Your task to perform on an android device: When is my next meeting? Image 0: 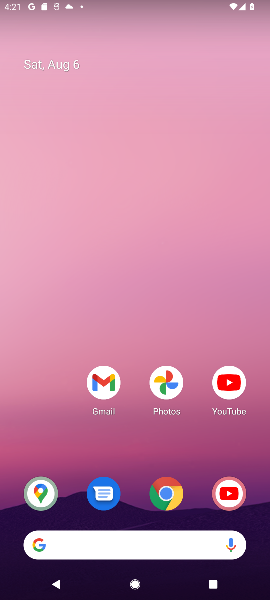
Step 0: drag from (168, 568) to (115, 177)
Your task to perform on an android device: When is my next meeting? Image 1: 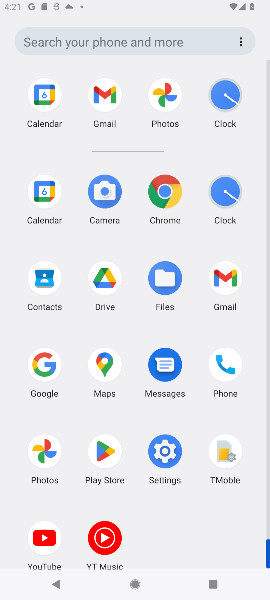
Step 1: drag from (153, 528) to (141, 148)
Your task to perform on an android device: When is my next meeting? Image 2: 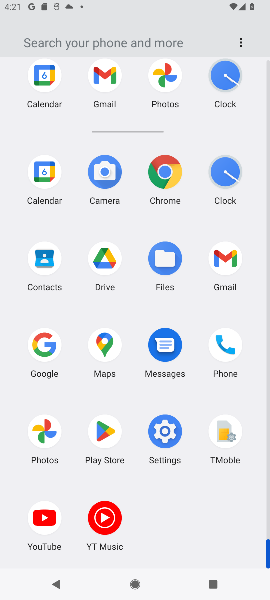
Step 2: click (45, 170)
Your task to perform on an android device: When is my next meeting? Image 3: 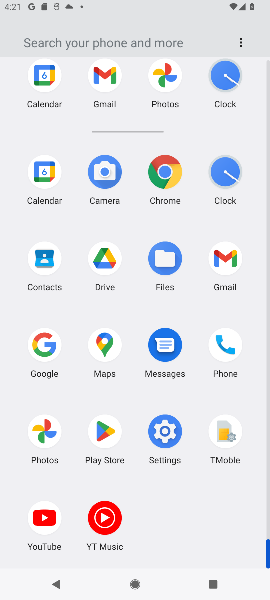
Step 3: click (43, 168)
Your task to perform on an android device: When is my next meeting? Image 4: 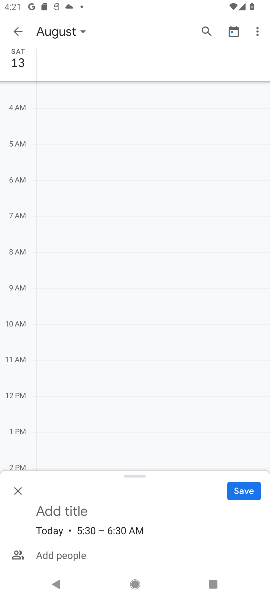
Step 4: press back button
Your task to perform on an android device: When is my next meeting? Image 5: 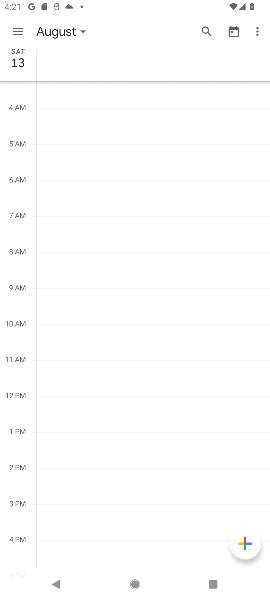
Step 5: press home button
Your task to perform on an android device: When is my next meeting? Image 6: 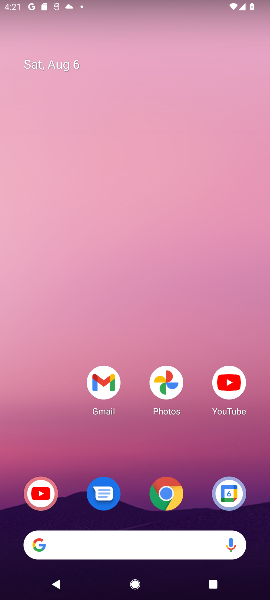
Step 6: drag from (110, 499) to (89, 84)
Your task to perform on an android device: When is my next meeting? Image 7: 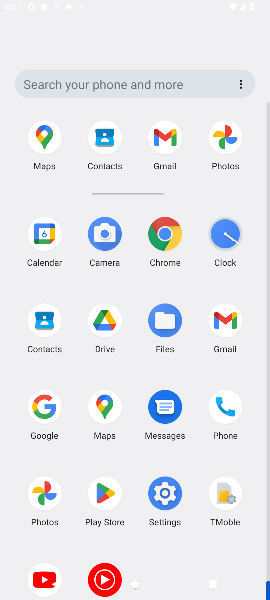
Step 7: drag from (131, 479) to (113, 88)
Your task to perform on an android device: When is my next meeting? Image 8: 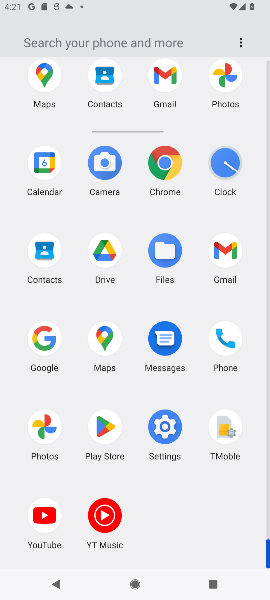
Step 8: drag from (170, 427) to (144, 64)
Your task to perform on an android device: When is my next meeting? Image 9: 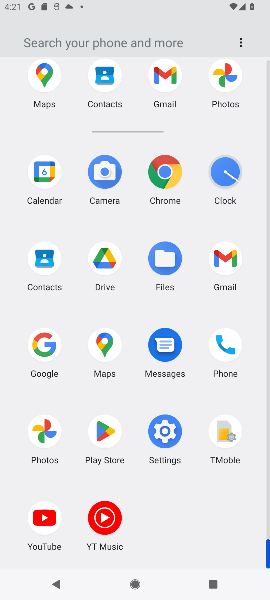
Step 9: click (42, 172)
Your task to perform on an android device: When is my next meeting? Image 10: 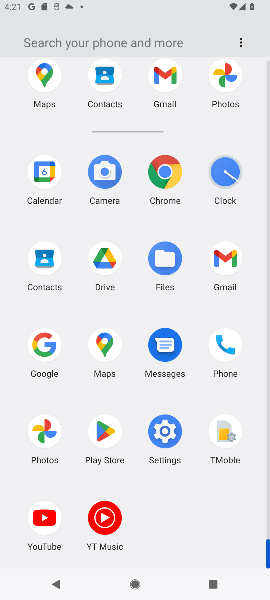
Step 10: click (42, 172)
Your task to perform on an android device: When is my next meeting? Image 11: 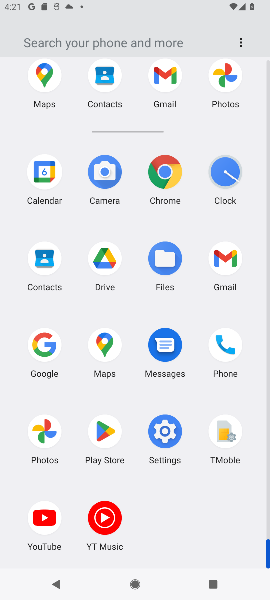
Step 11: click (46, 174)
Your task to perform on an android device: When is my next meeting? Image 12: 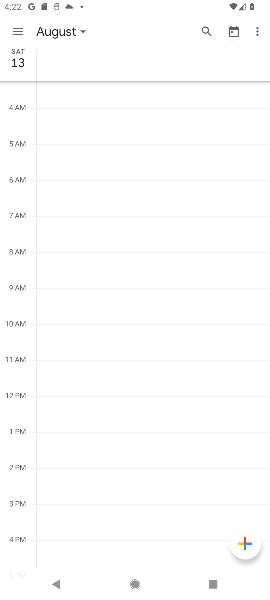
Step 12: click (84, 27)
Your task to perform on an android device: When is my next meeting? Image 13: 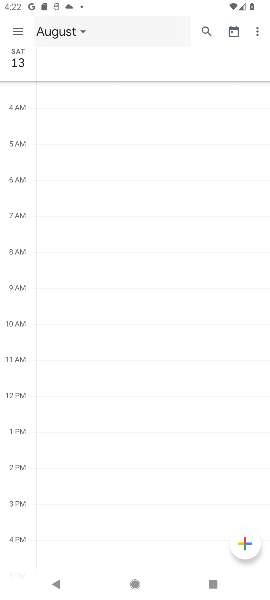
Step 13: click (84, 26)
Your task to perform on an android device: When is my next meeting? Image 14: 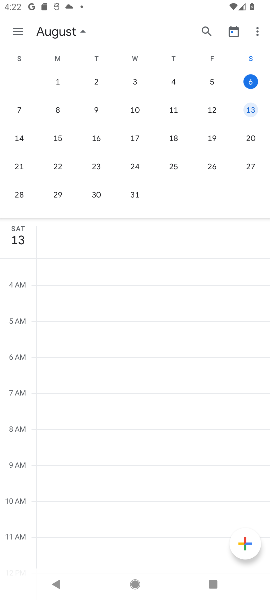
Step 14: task complete